Your task to perform on an android device: When is my next meeting? Image 0: 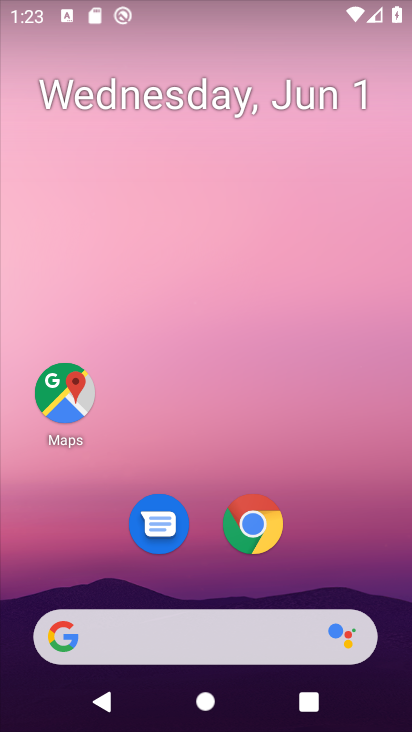
Step 0: drag from (215, 333) to (205, 0)
Your task to perform on an android device: When is my next meeting? Image 1: 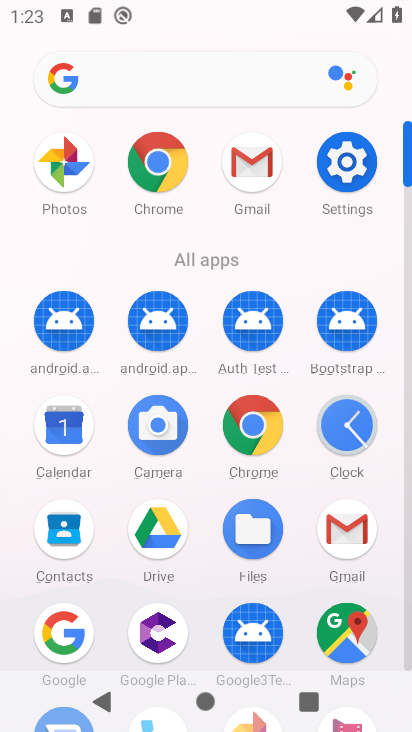
Step 1: click (74, 430)
Your task to perform on an android device: When is my next meeting? Image 2: 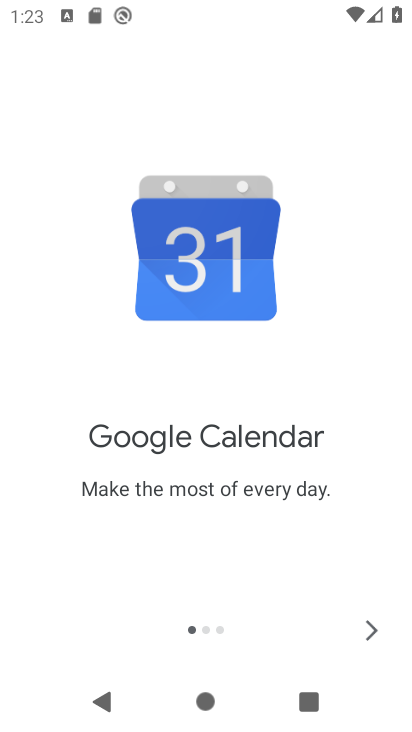
Step 2: click (368, 617)
Your task to perform on an android device: When is my next meeting? Image 3: 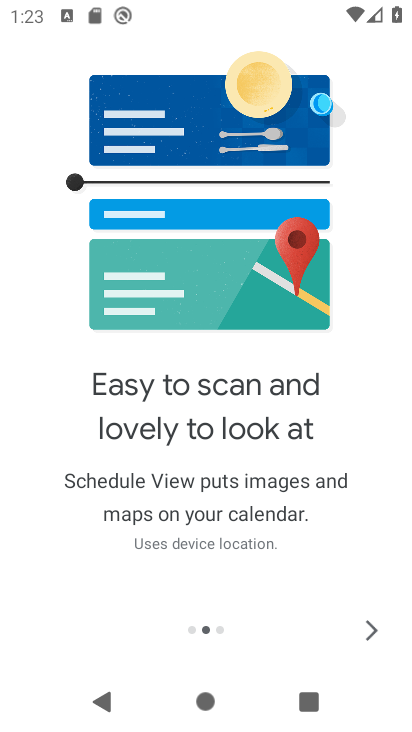
Step 3: click (368, 617)
Your task to perform on an android device: When is my next meeting? Image 4: 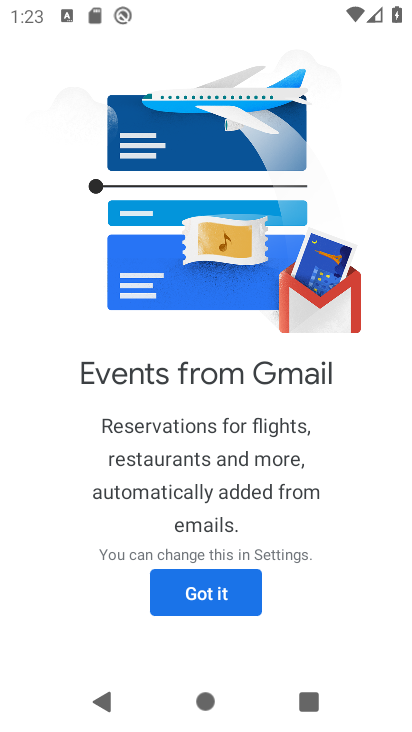
Step 4: click (252, 580)
Your task to perform on an android device: When is my next meeting? Image 5: 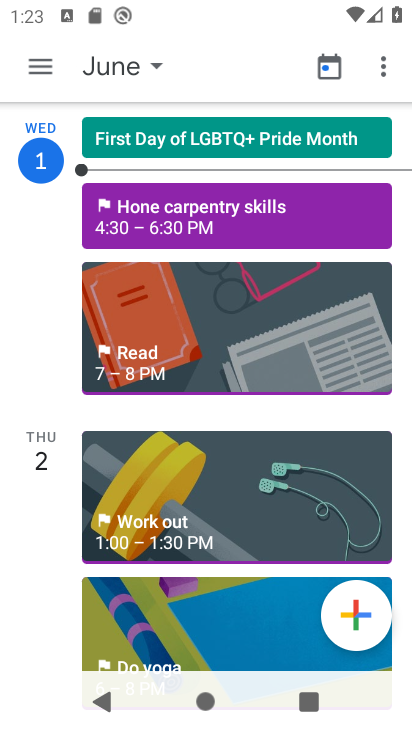
Step 5: task complete